Your task to perform on an android device: Go to privacy settings Image 0: 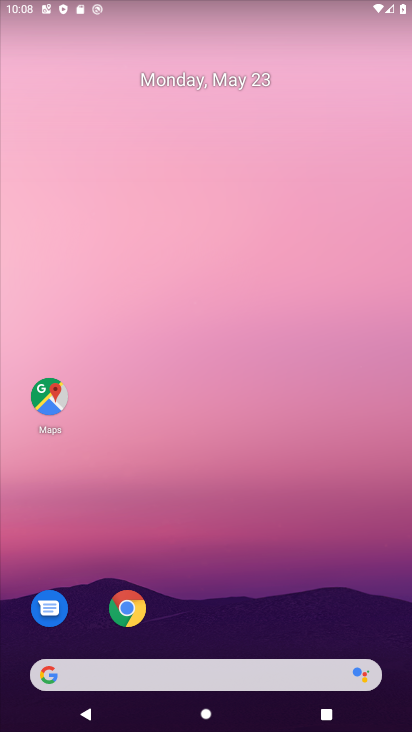
Step 0: click (136, 610)
Your task to perform on an android device: Go to privacy settings Image 1: 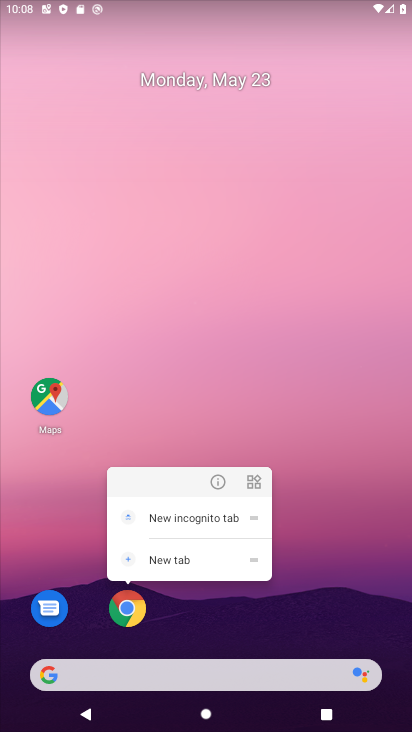
Step 1: click (123, 614)
Your task to perform on an android device: Go to privacy settings Image 2: 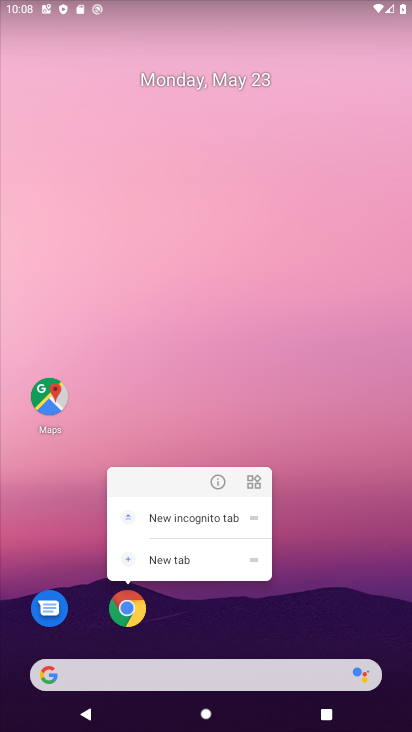
Step 2: click (130, 614)
Your task to perform on an android device: Go to privacy settings Image 3: 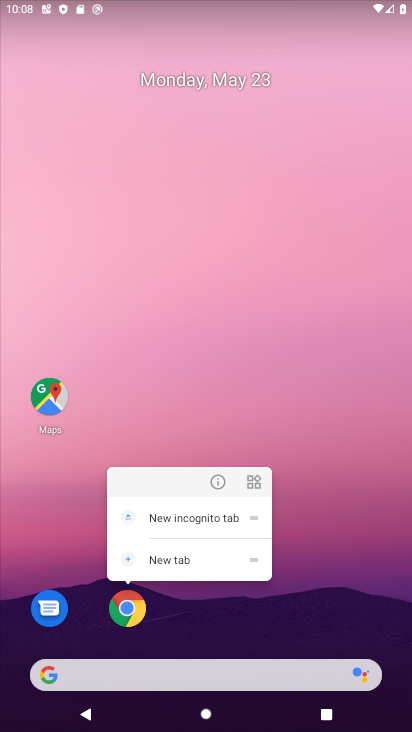
Step 3: click (136, 621)
Your task to perform on an android device: Go to privacy settings Image 4: 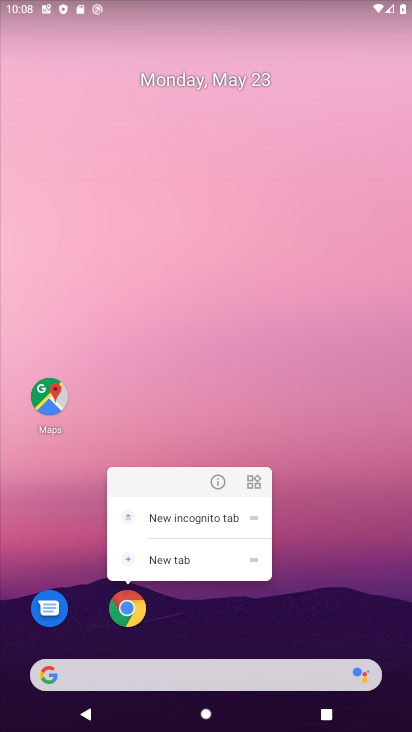
Step 4: click (136, 615)
Your task to perform on an android device: Go to privacy settings Image 5: 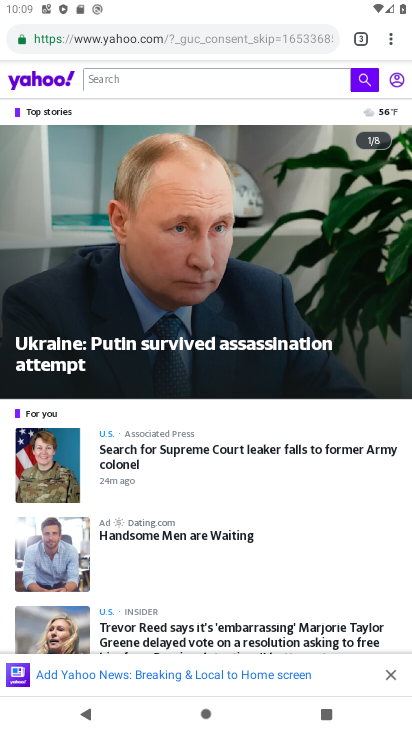
Step 5: drag from (406, 37) to (323, 480)
Your task to perform on an android device: Go to privacy settings Image 6: 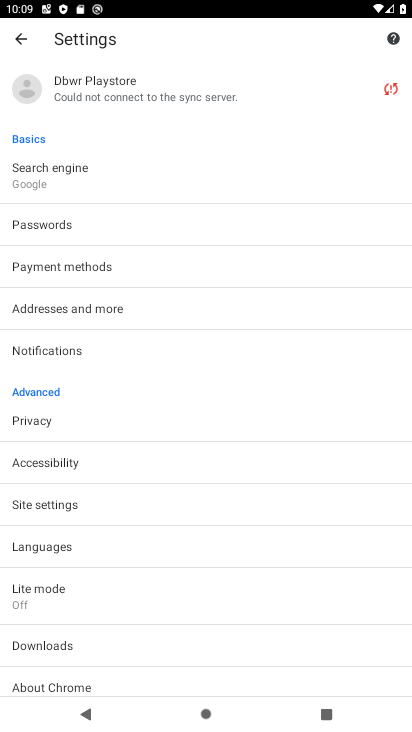
Step 6: click (87, 427)
Your task to perform on an android device: Go to privacy settings Image 7: 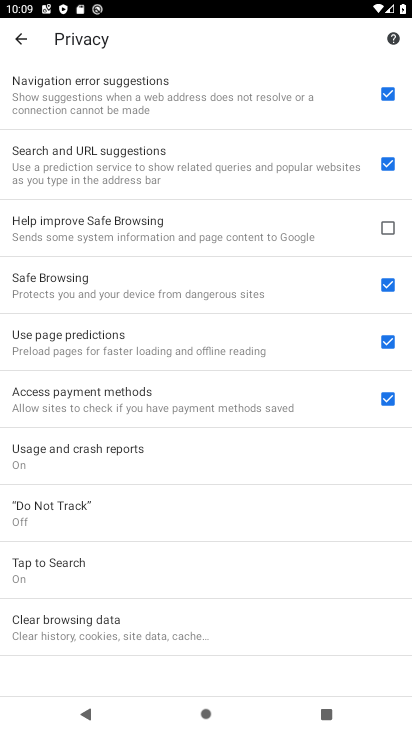
Step 7: task complete